Your task to perform on an android device: turn on priority inbox in the gmail app Image 0: 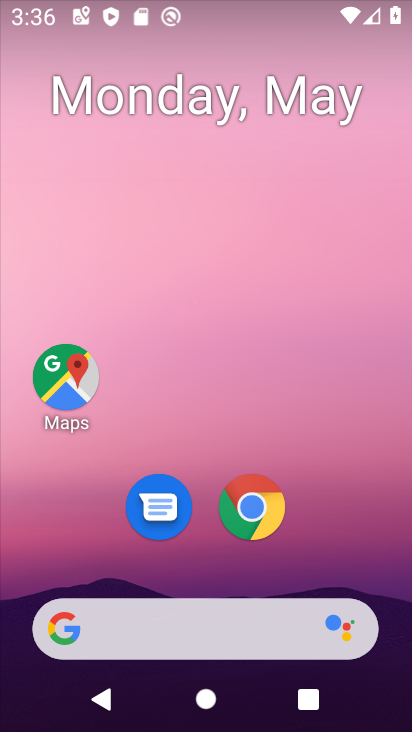
Step 0: drag from (284, 0) to (286, 39)
Your task to perform on an android device: turn on priority inbox in the gmail app Image 1: 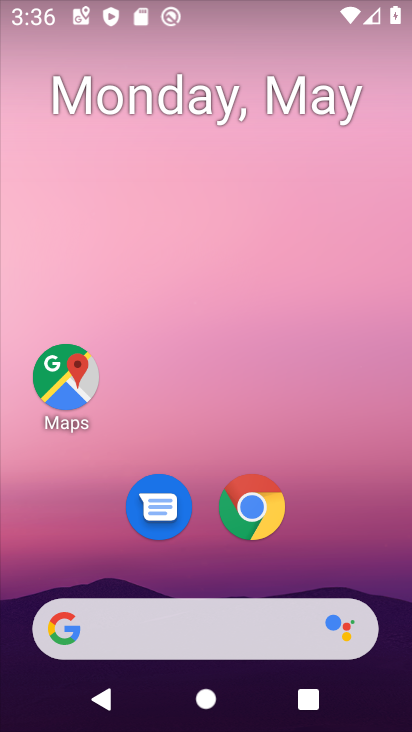
Step 1: drag from (208, 580) to (269, 34)
Your task to perform on an android device: turn on priority inbox in the gmail app Image 2: 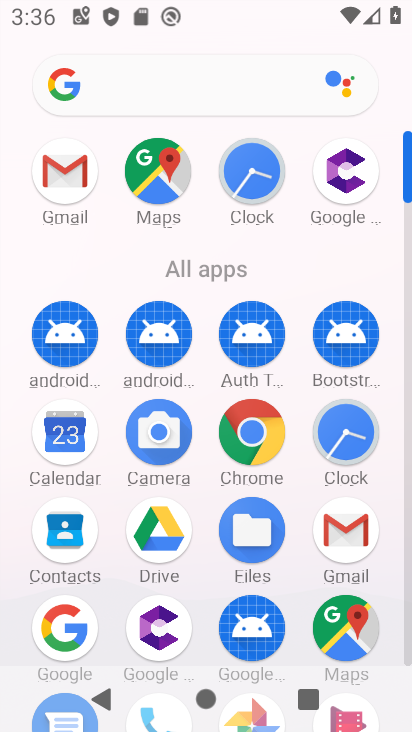
Step 2: click (338, 543)
Your task to perform on an android device: turn on priority inbox in the gmail app Image 3: 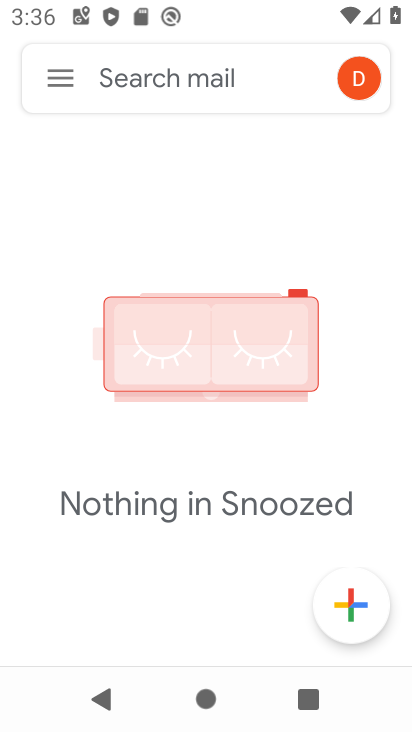
Step 3: click (63, 83)
Your task to perform on an android device: turn on priority inbox in the gmail app Image 4: 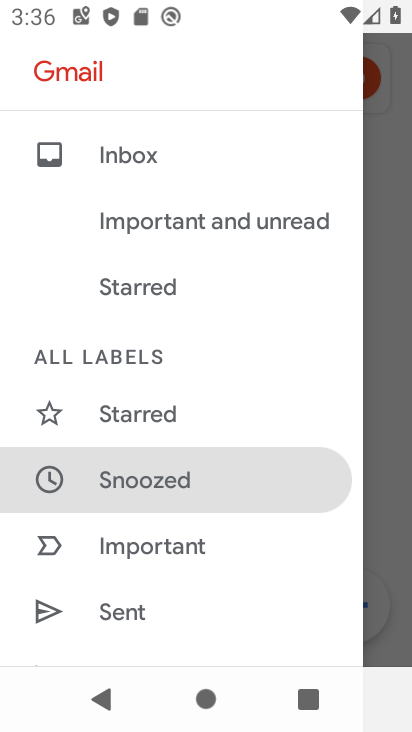
Step 4: drag from (140, 582) to (210, 269)
Your task to perform on an android device: turn on priority inbox in the gmail app Image 5: 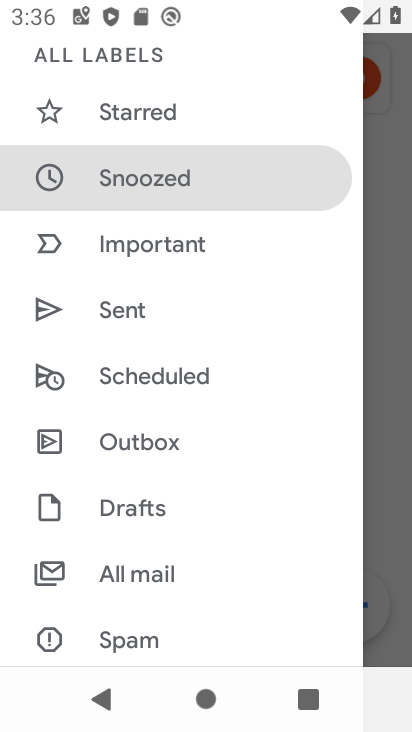
Step 5: drag from (128, 623) to (152, 147)
Your task to perform on an android device: turn on priority inbox in the gmail app Image 6: 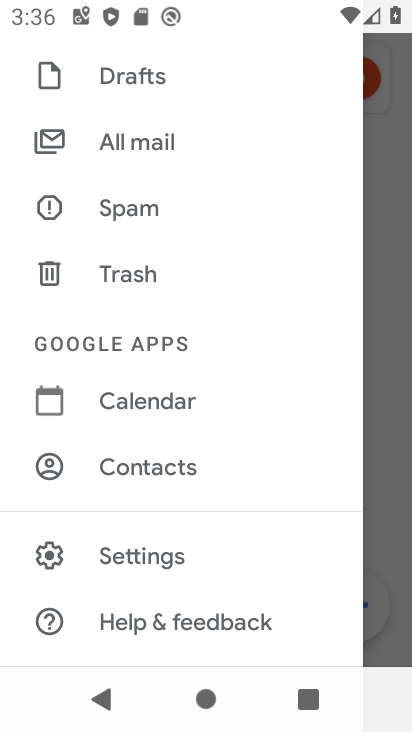
Step 6: click (78, 565)
Your task to perform on an android device: turn on priority inbox in the gmail app Image 7: 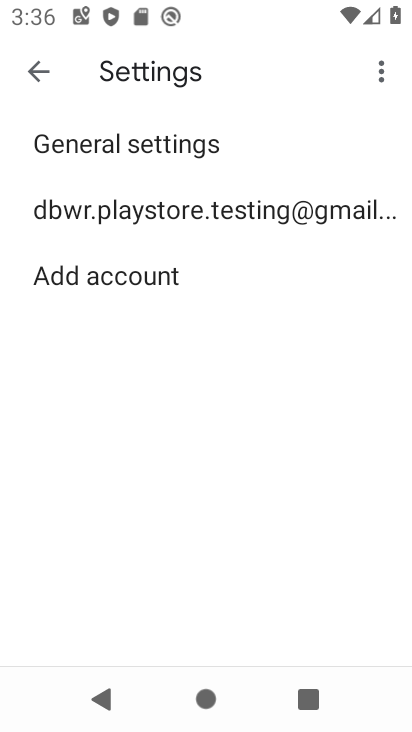
Step 7: click (180, 219)
Your task to perform on an android device: turn on priority inbox in the gmail app Image 8: 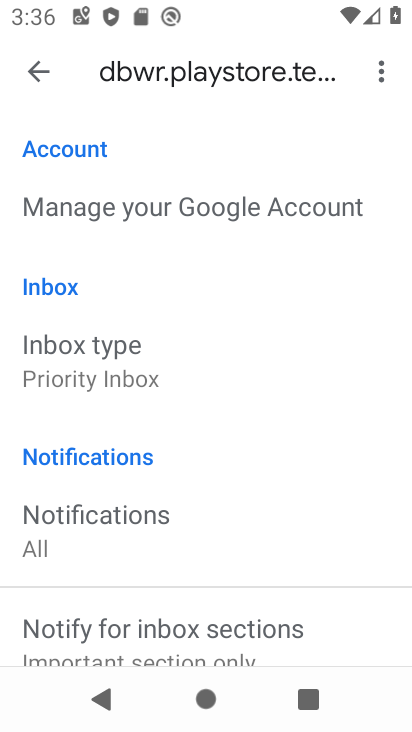
Step 8: click (121, 383)
Your task to perform on an android device: turn on priority inbox in the gmail app Image 9: 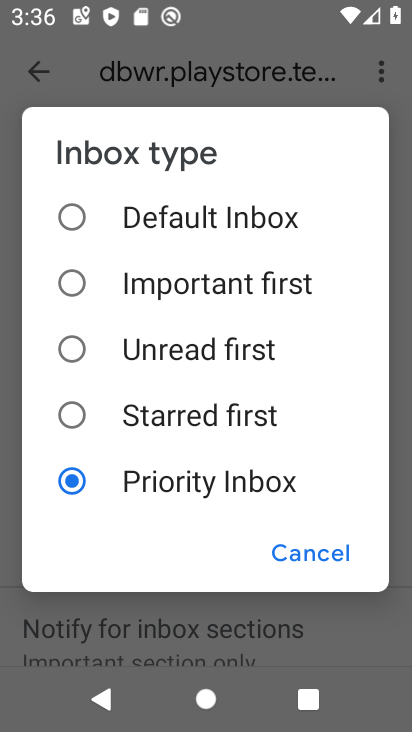
Step 9: task complete